Your task to perform on an android device: Open Wikipedia Image 0: 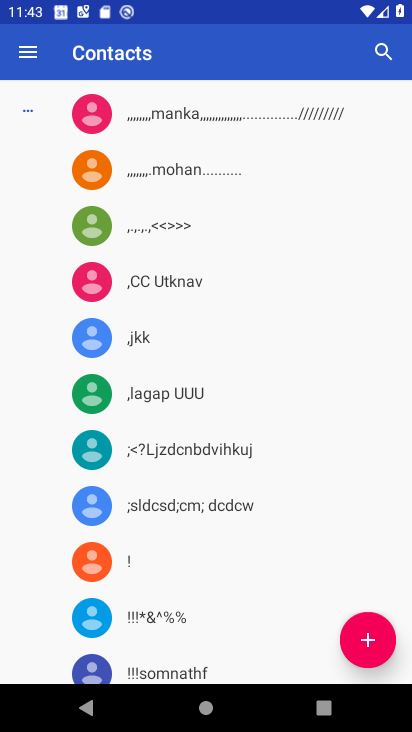
Step 0: press home button
Your task to perform on an android device: Open Wikipedia Image 1: 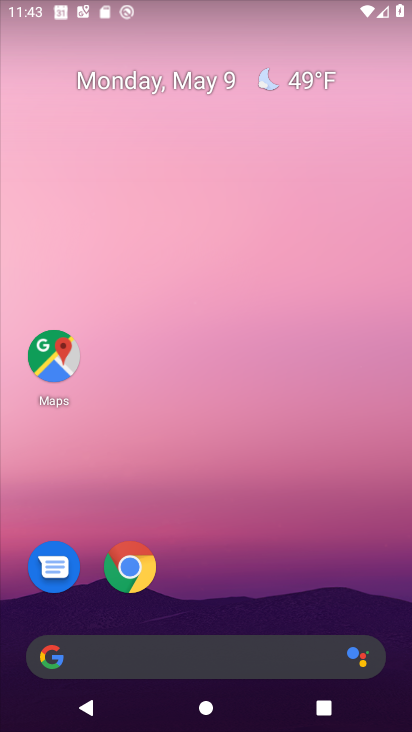
Step 1: drag from (205, 637) to (194, 279)
Your task to perform on an android device: Open Wikipedia Image 2: 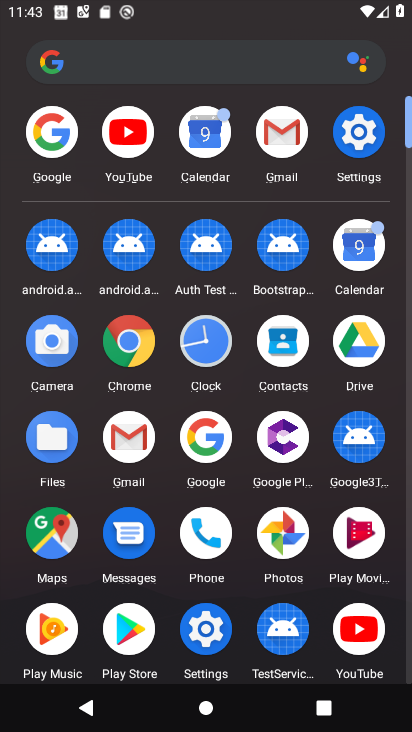
Step 2: click (125, 327)
Your task to perform on an android device: Open Wikipedia Image 3: 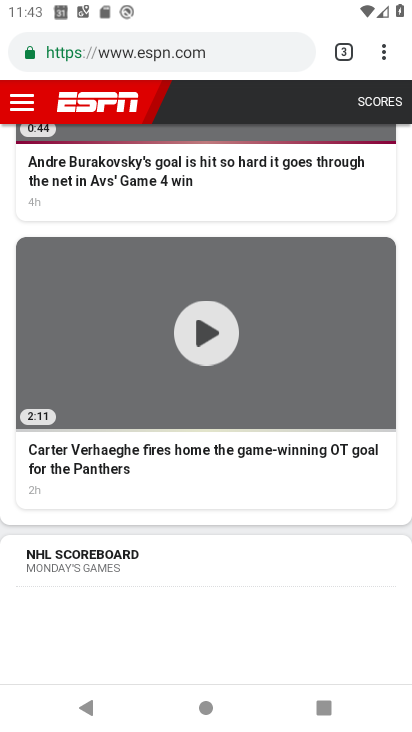
Step 3: click (348, 51)
Your task to perform on an android device: Open Wikipedia Image 4: 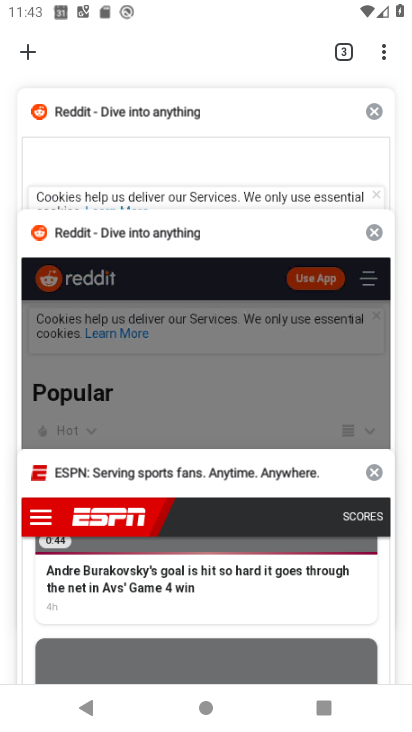
Step 4: click (32, 47)
Your task to perform on an android device: Open Wikipedia Image 5: 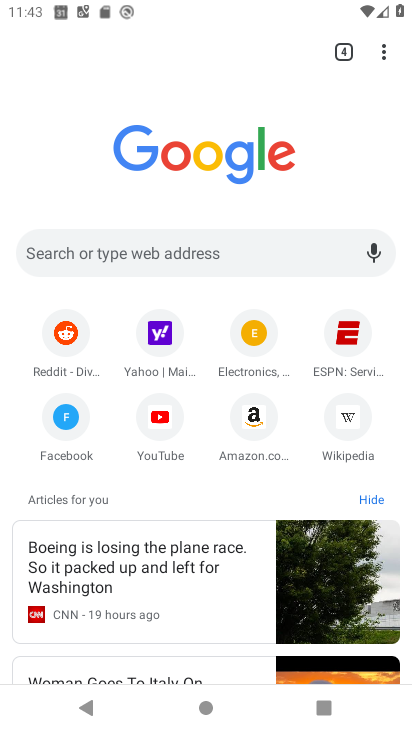
Step 5: click (349, 421)
Your task to perform on an android device: Open Wikipedia Image 6: 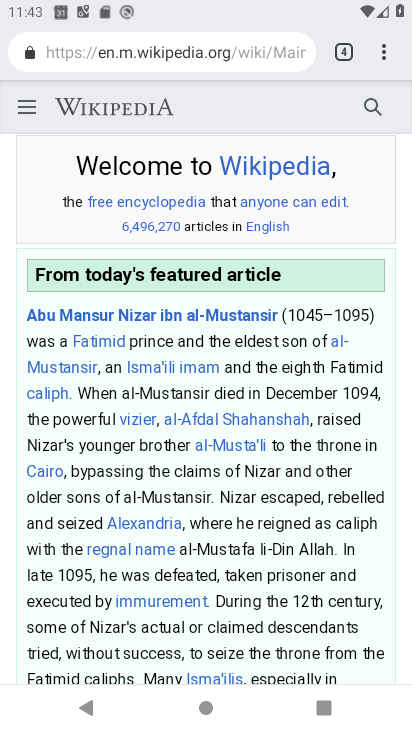
Step 6: task complete